Your task to perform on an android device: stop showing notifications on the lock screen Image 0: 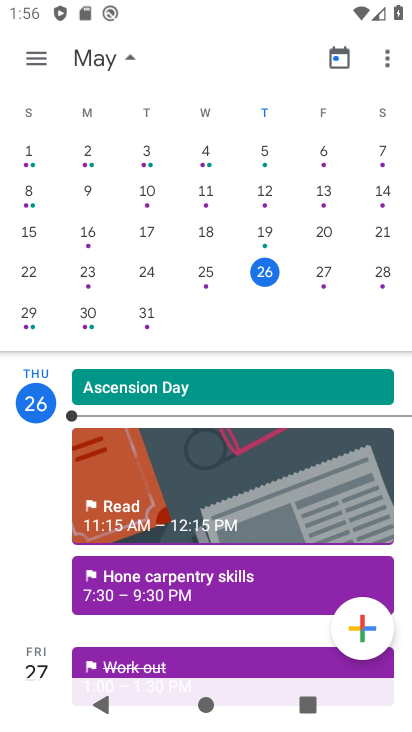
Step 0: press home button
Your task to perform on an android device: stop showing notifications on the lock screen Image 1: 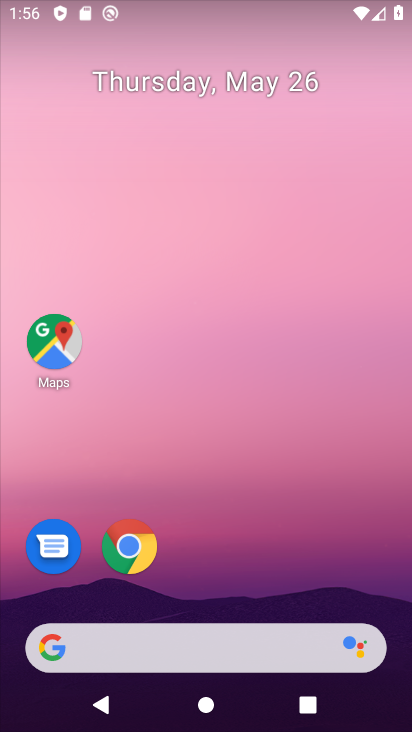
Step 1: drag from (209, 562) to (280, 179)
Your task to perform on an android device: stop showing notifications on the lock screen Image 2: 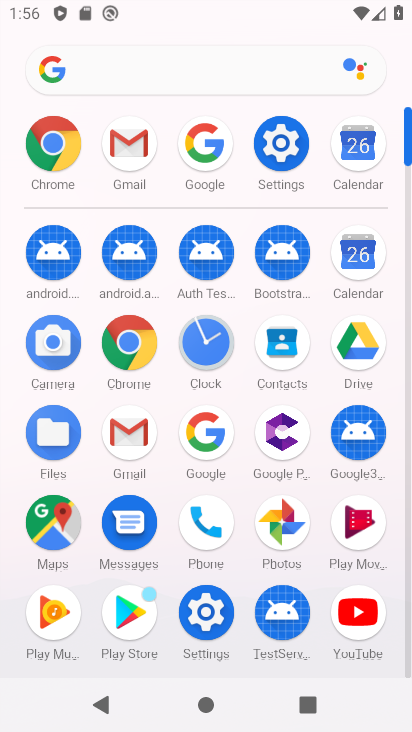
Step 2: click (275, 141)
Your task to perform on an android device: stop showing notifications on the lock screen Image 3: 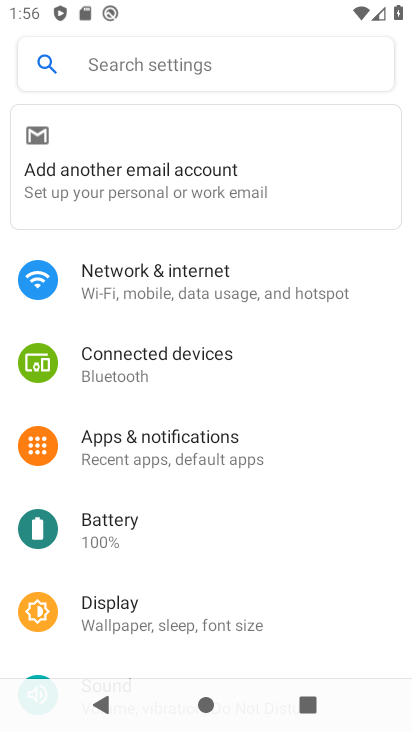
Step 3: click (191, 433)
Your task to perform on an android device: stop showing notifications on the lock screen Image 4: 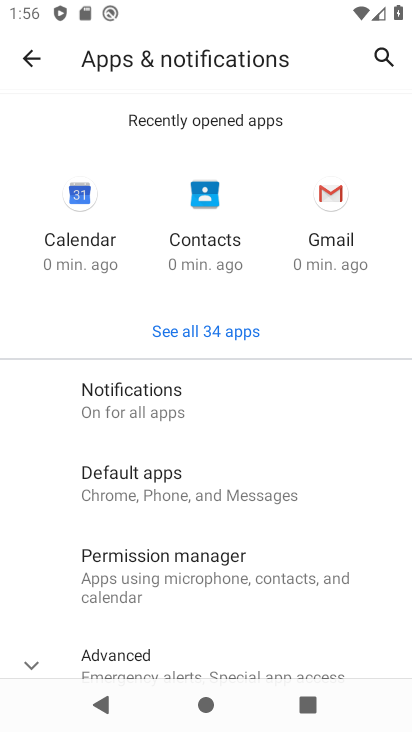
Step 4: click (177, 405)
Your task to perform on an android device: stop showing notifications on the lock screen Image 5: 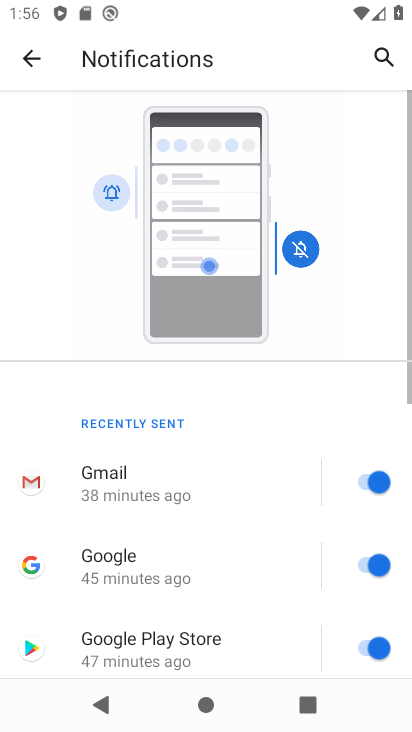
Step 5: drag from (210, 640) to (202, 92)
Your task to perform on an android device: stop showing notifications on the lock screen Image 6: 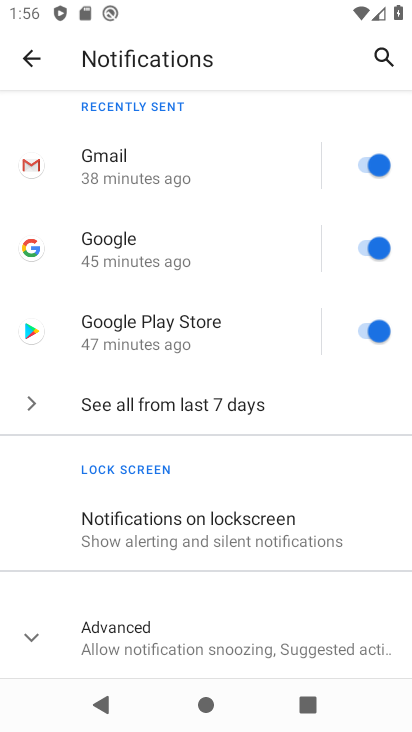
Step 6: click (109, 538)
Your task to perform on an android device: stop showing notifications on the lock screen Image 7: 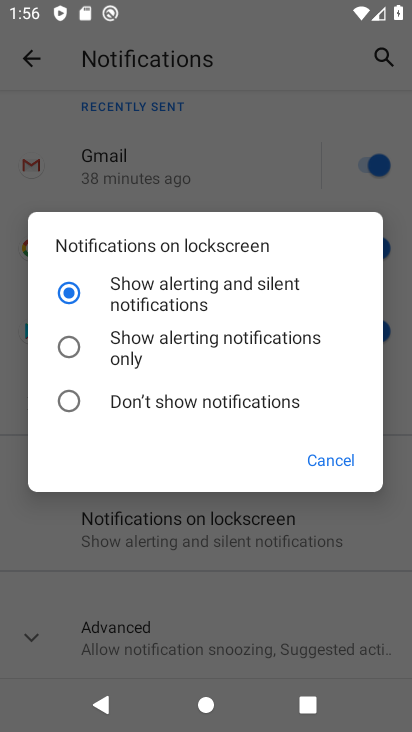
Step 7: click (69, 403)
Your task to perform on an android device: stop showing notifications on the lock screen Image 8: 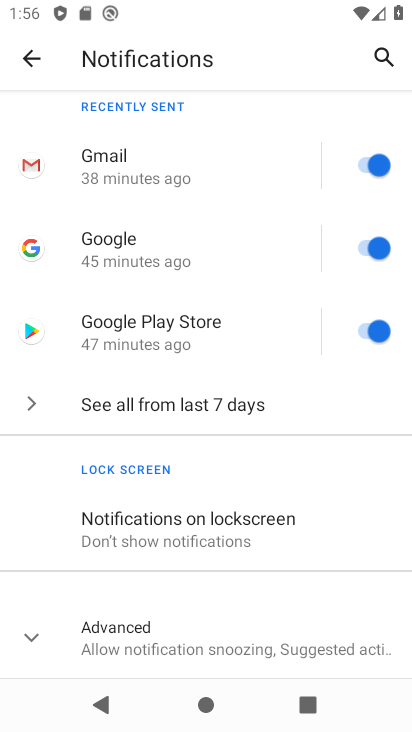
Step 8: task complete